Your task to perform on an android device: Open Google Chrome and open the bookmarks view Image 0: 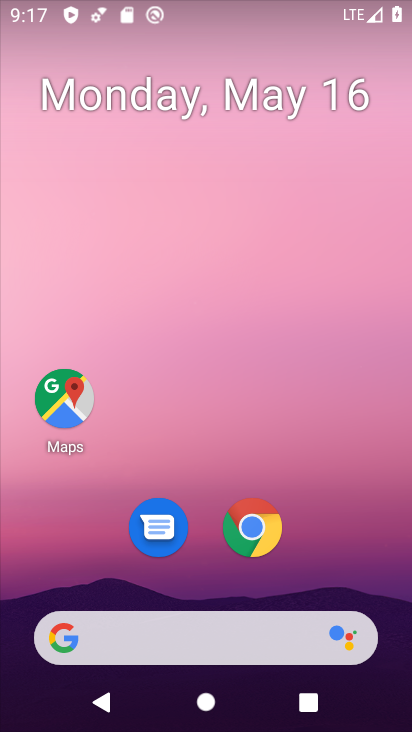
Step 0: click (254, 539)
Your task to perform on an android device: Open Google Chrome and open the bookmarks view Image 1: 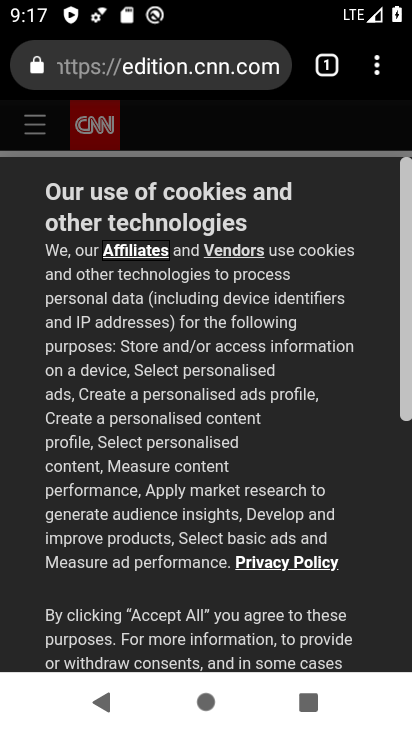
Step 1: click (383, 69)
Your task to perform on an android device: Open Google Chrome and open the bookmarks view Image 2: 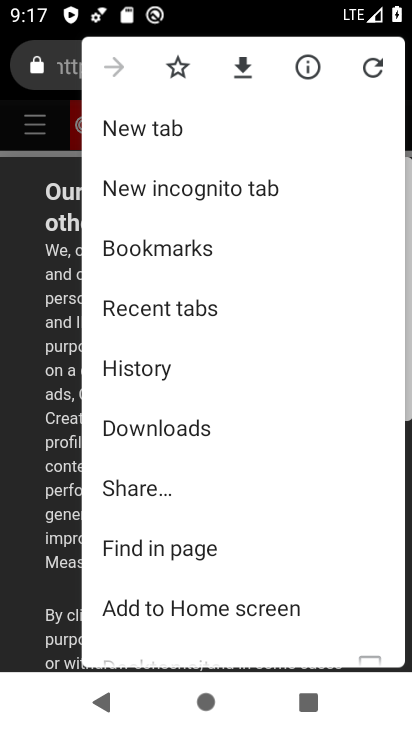
Step 2: click (149, 246)
Your task to perform on an android device: Open Google Chrome and open the bookmarks view Image 3: 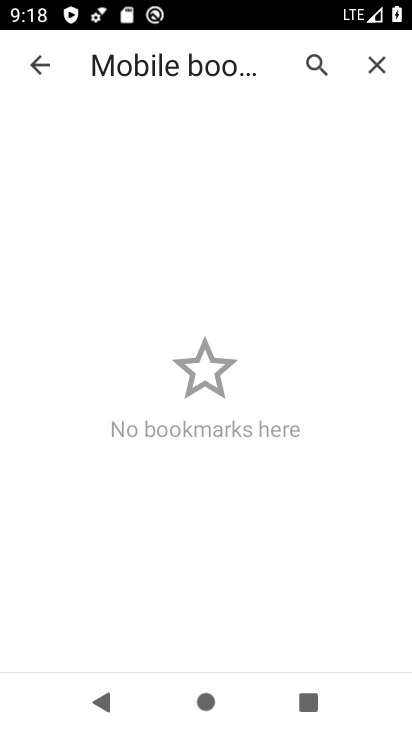
Step 3: task complete